Your task to perform on an android device: Open ESPN.com Image 0: 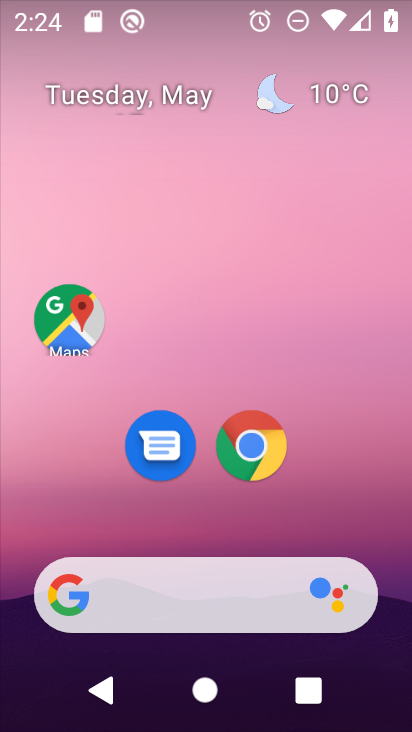
Step 0: press home button
Your task to perform on an android device: Open ESPN.com Image 1: 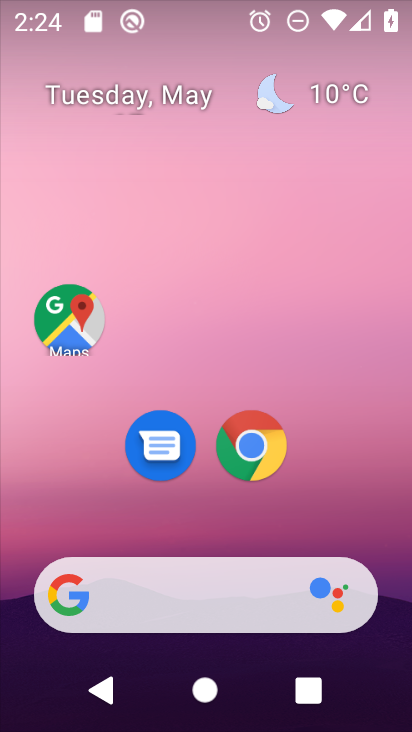
Step 1: click (254, 458)
Your task to perform on an android device: Open ESPN.com Image 2: 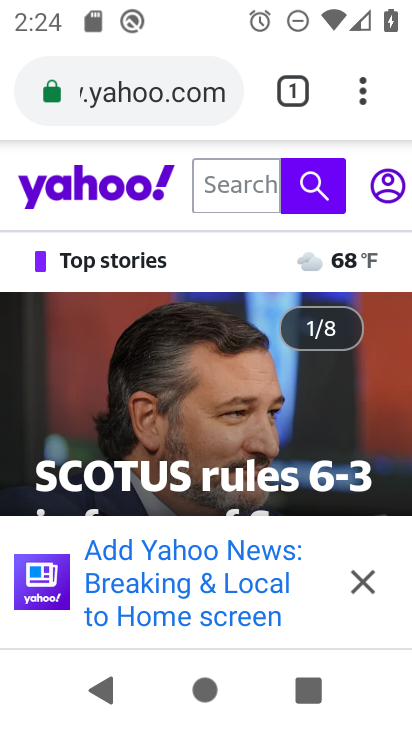
Step 2: click (187, 93)
Your task to perform on an android device: Open ESPN.com Image 3: 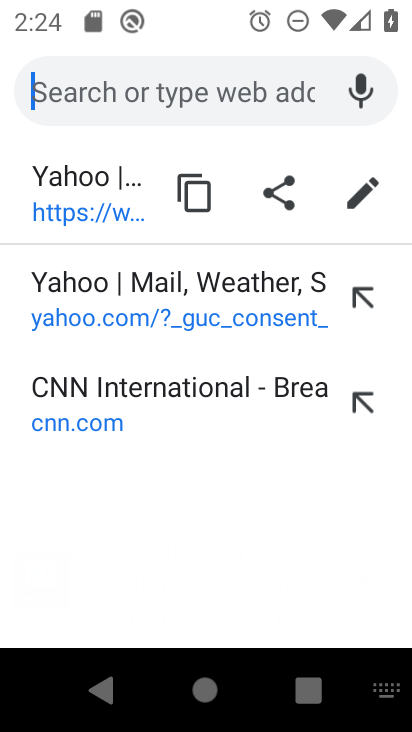
Step 3: type "espn.com"
Your task to perform on an android device: Open ESPN.com Image 4: 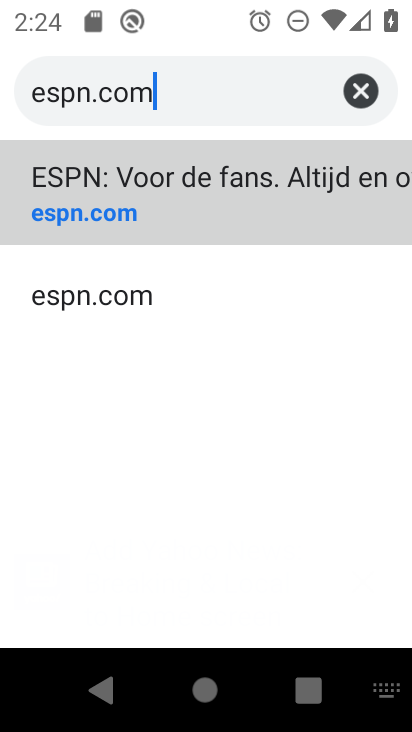
Step 4: click (239, 182)
Your task to perform on an android device: Open ESPN.com Image 5: 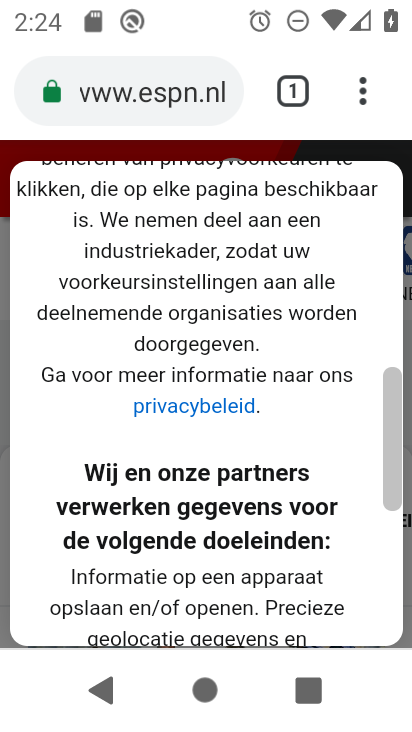
Step 5: drag from (240, 571) to (202, 261)
Your task to perform on an android device: Open ESPN.com Image 6: 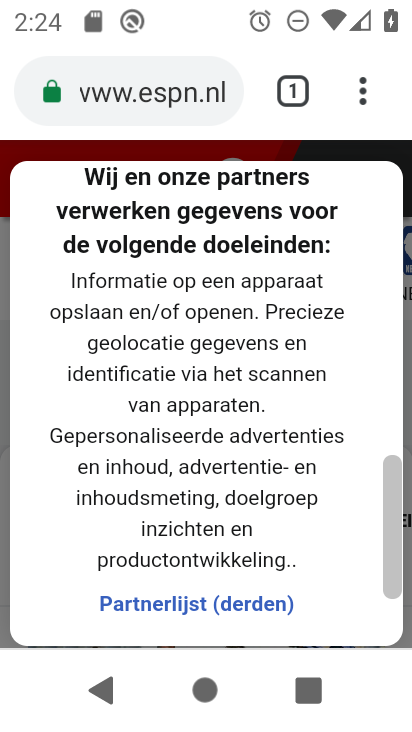
Step 6: drag from (310, 586) to (248, 304)
Your task to perform on an android device: Open ESPN.com Image 7: 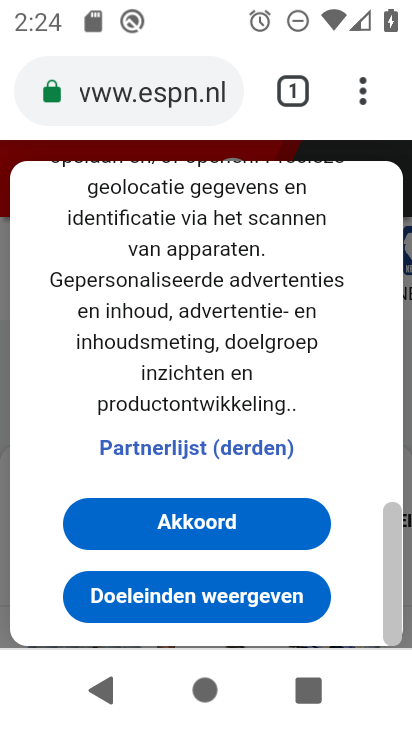
Step 7: click (224, 536)
Your task to perform on an android device: Open ESPN.com Image 8: 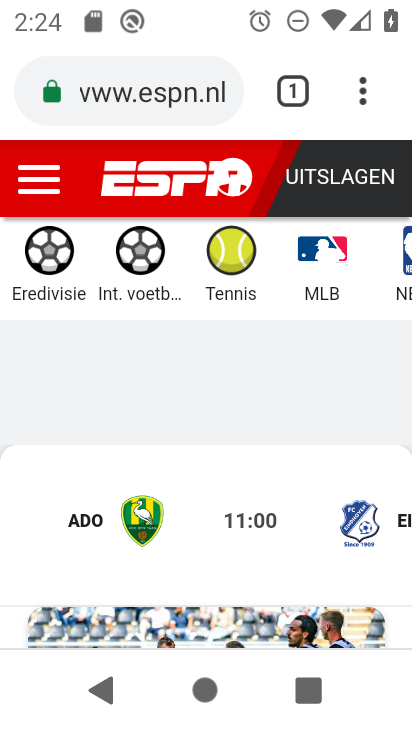
Step 8: task complete